Your task to perform on an android device: Go to privacy settings Image 0: 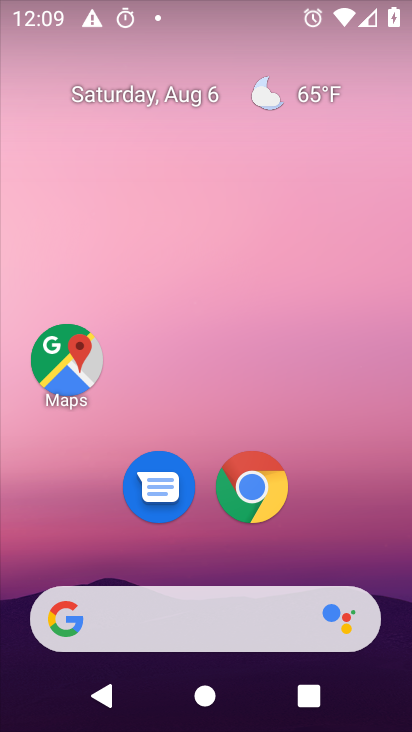
Step 0: drag from (218, 536) to (260, 122)
Your task to perform on an android device: Go to privacy settings Image 1: 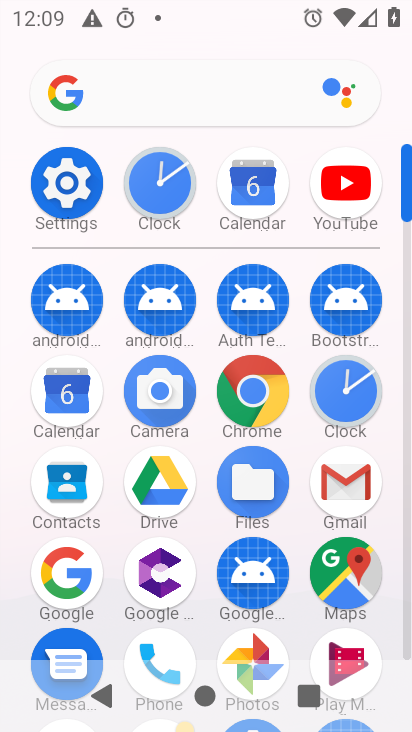
Step 1: click (59, 188)
Your task to perform on an android device: Go to privacy settings Image 2: 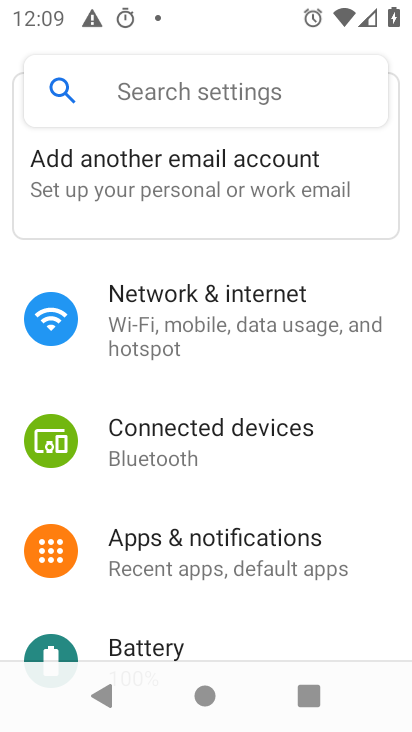
Step 2: drag from (232, 612) to (331, 61)
Your task to perform on an android device: Go to privacy settings Image 3: 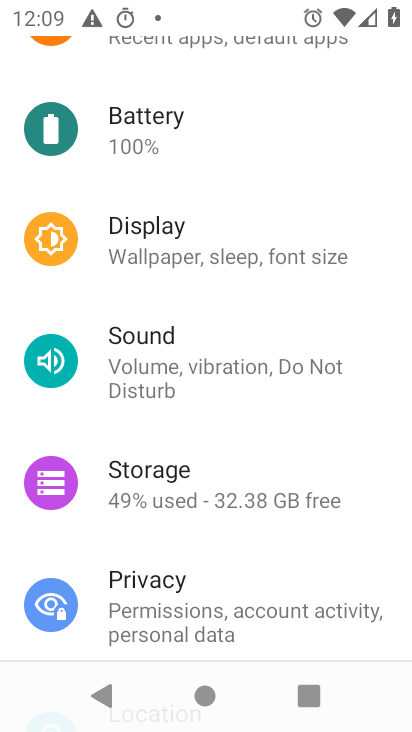
Step 3: click (150, 584)
Your task to perform on an android device: Go to privacy settings Image 4: 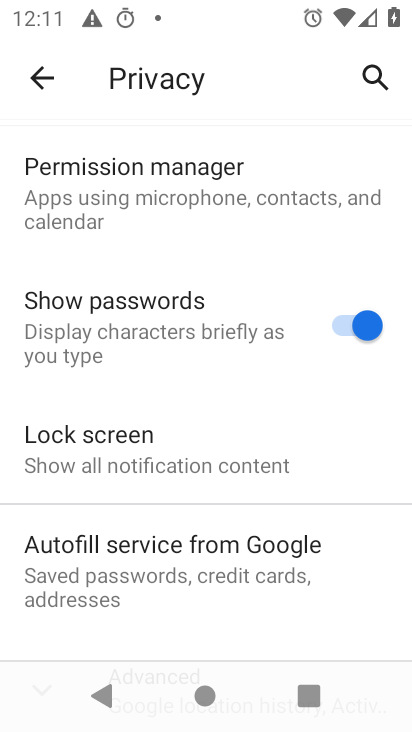
Step 4: task complete